Your task to perform on an android device: Open the calendar and show me this week's events? Image 0: 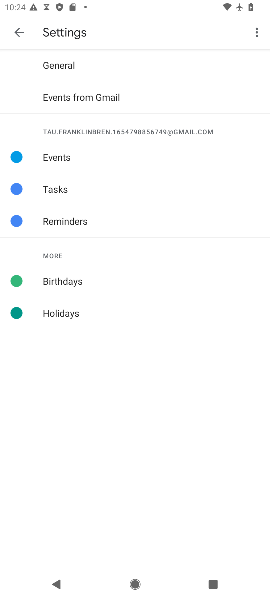
Step 0: press home button
Your task to perform on an android device: Open the calendar and show me this week's events? Image 1: 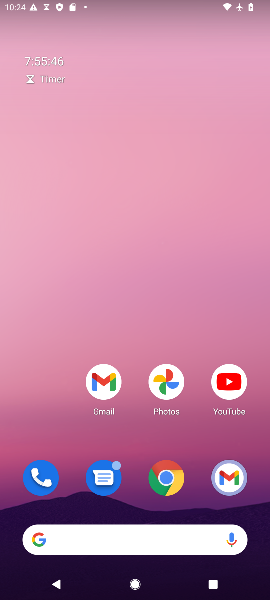
Step 1: drag from (140, 438) to (122, 100)
Your task to perform on an android device: Open the calendar and show me this week's events? Image 2: 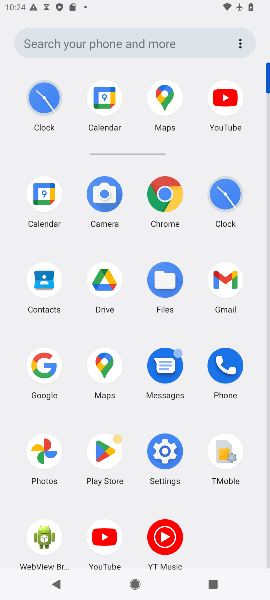
Step 2: click (44, 209)
Your task to perform on an android device: Open the calendar and show me this week's events? Image 3: 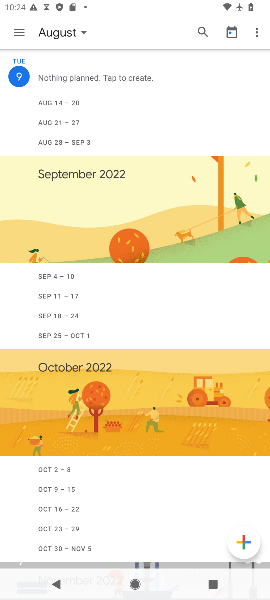
Step 3: click (15, 27)
Your task to perform on an android device: Open the calendar and show me this week's events? Image 4: 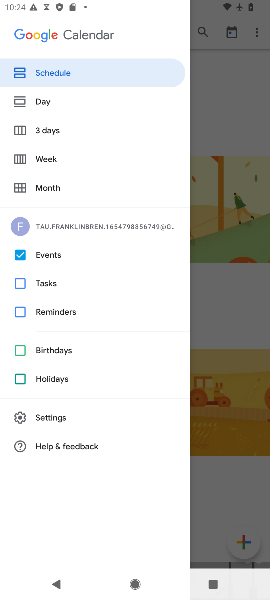
Step 4: click (45, 164)
Your task to perform on an android device: Open the calendar and show me this week's events? Image 5: 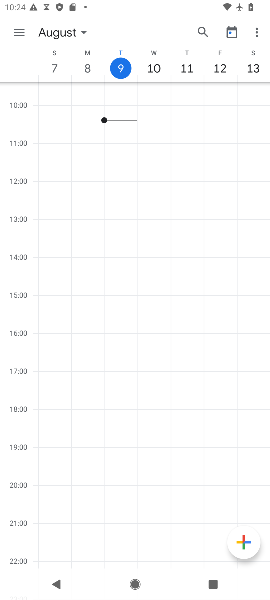
Step 5: task complete